Your task to perform on an android device: Open Google Chrome and open the bookmarks view Image 0: 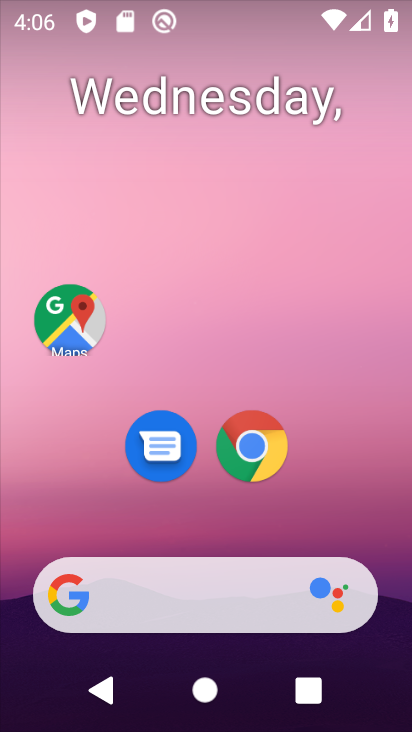
Step 0: drag from (227, 721) to (227, 677)
Your task to perform on an android device: Open Google Chrome and open the bookmarks view Image 1: 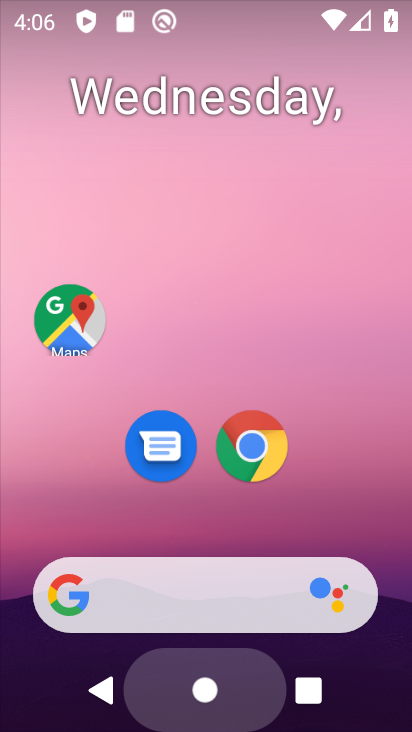
Step 1: click (228, 126)
Your task to perform on an android device: Open Google Chrome and open the bookmarks view Image 2: 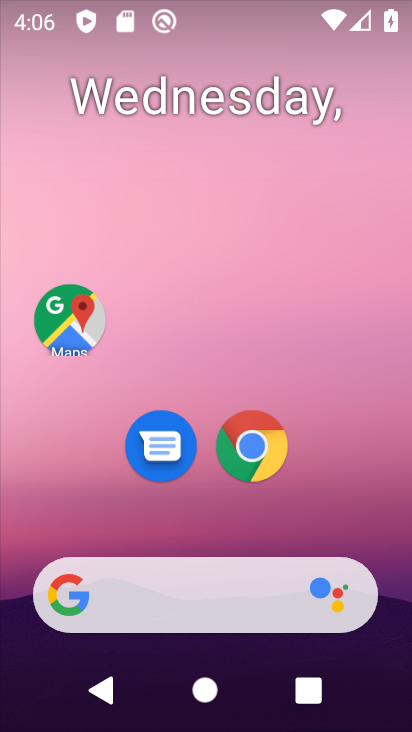
Step 2: click (247, 446)
Your task to perform on an android device: Open Google Chrome and open the bookmarks view Image 3: 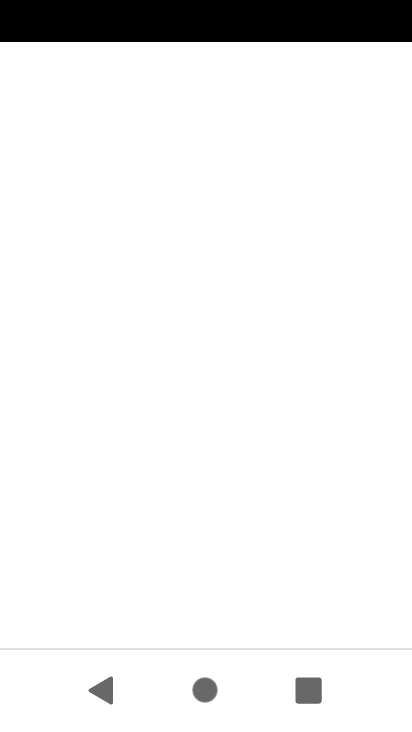
Step 3: click (247, 446)
Your task to perform on an android device: Open Google Chrome and open the bookmarks view Image 4: 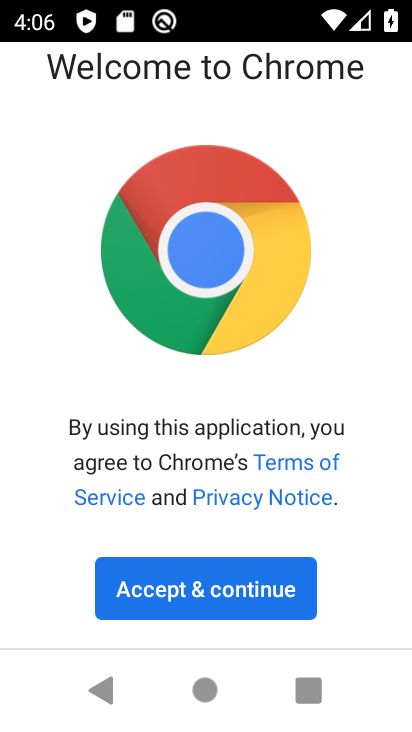
Step 4: click (195, 591)
Your task to perform on an android device: Open Google Chrome and open the bookmarks view Image 5: 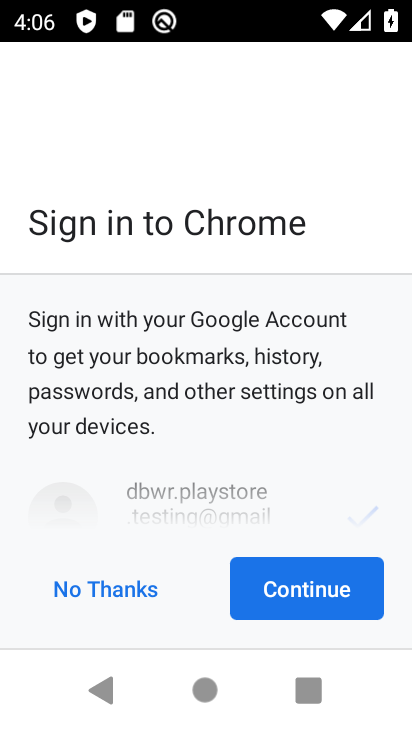
Step 5: click (285, 584)
Your task to perform on an android device: Open Google Chrome and open the bookmarks view Image 6: 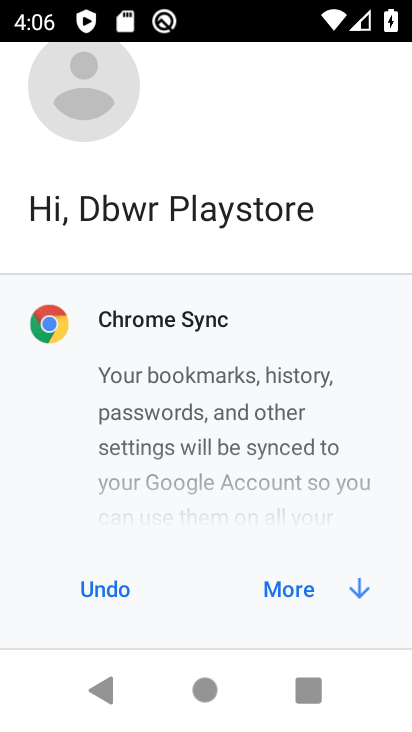
Step 6: click (285, 584)
Your task to perform on an android device: Open Google Chrome and open the bookmarks view Image 7: 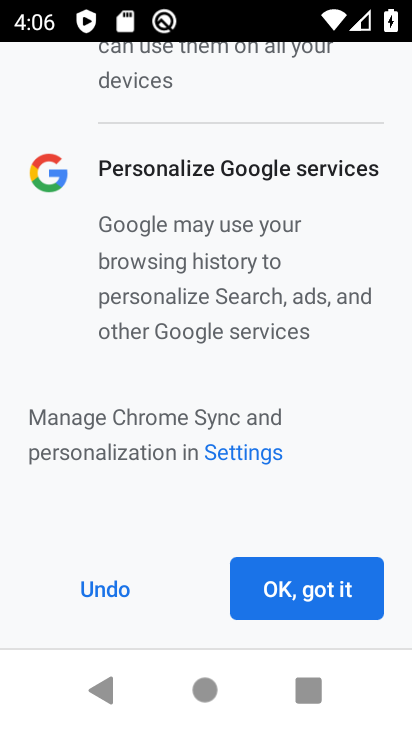
Step 7: click (309, 580)
Your task to perform on an android device: Open Google Chrome and open the bookmarks view Image 8: 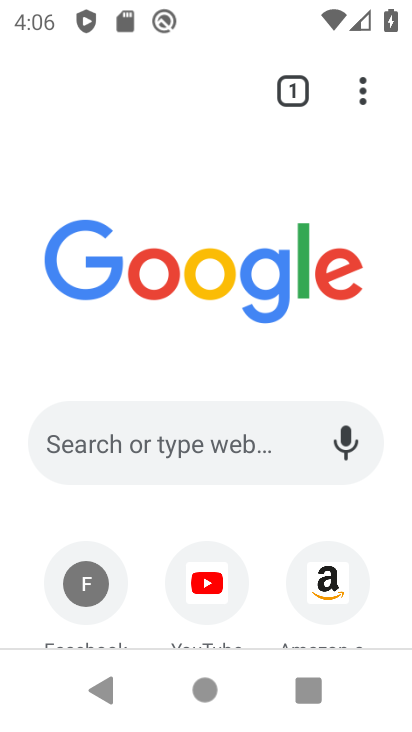
Step 8: click (364, 99)
Your task to perform on an android device: Open Google Chrome and open the bookmarks view Image 9: 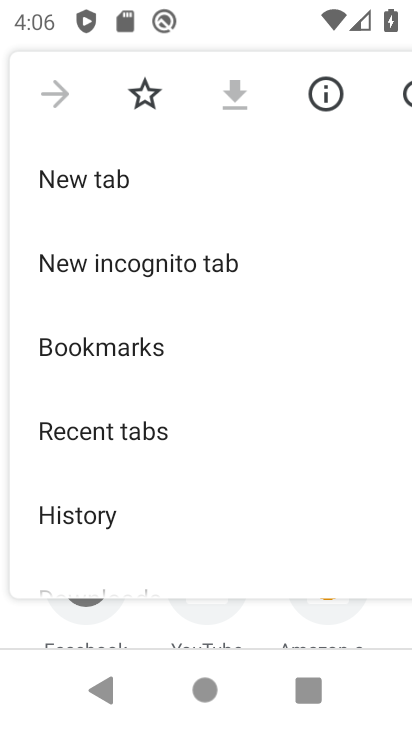
Step 9: click (106, 347)
Your task to perform on an android device: Open Google Chrome and open the bookmarks view Image 10: 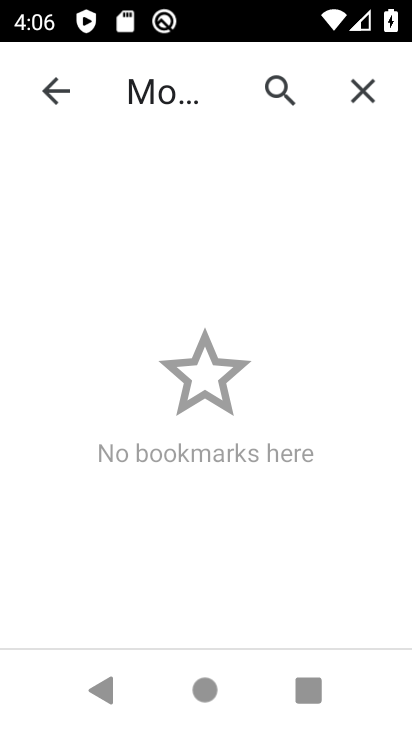
Step 10: task complete